Your task to perform on an android device: Open location settings Image 0: 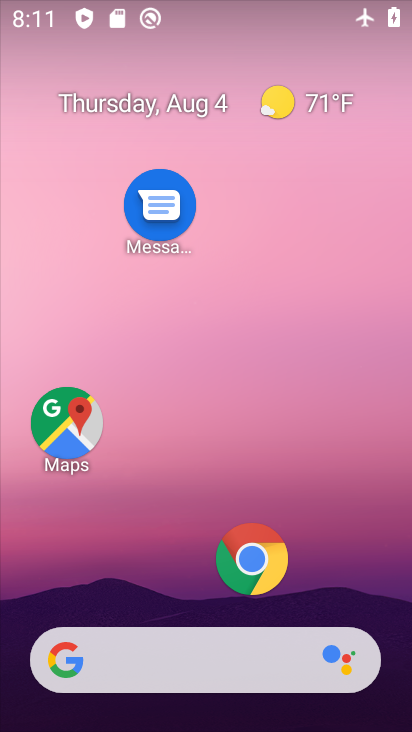
Step 0: drag from (217, 618) to (190, 21)
Your task to perform on an android device: Open location settings Image 1: 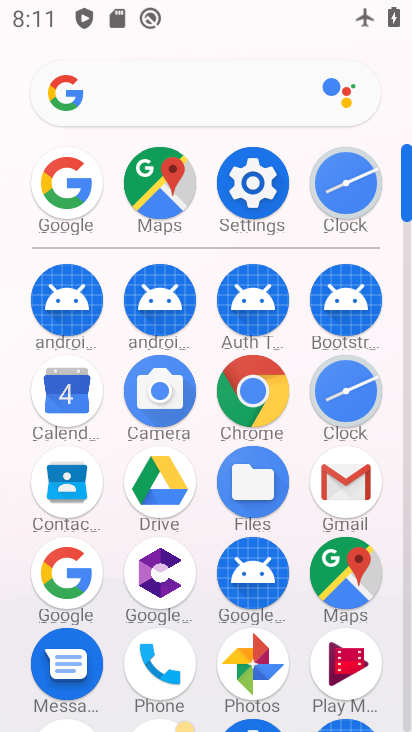
Step 1: click (266, 200)
Your task to perform on an android device: Open location settings Image 2: 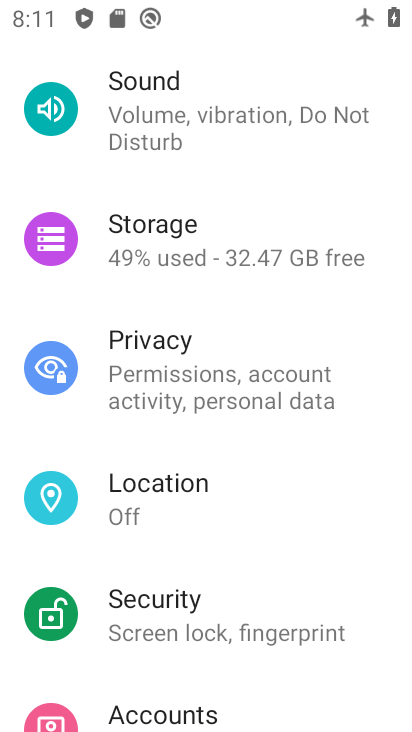
Step 2: click (148, 515)
Your task to perform on an android device: Open location settings Image 3: 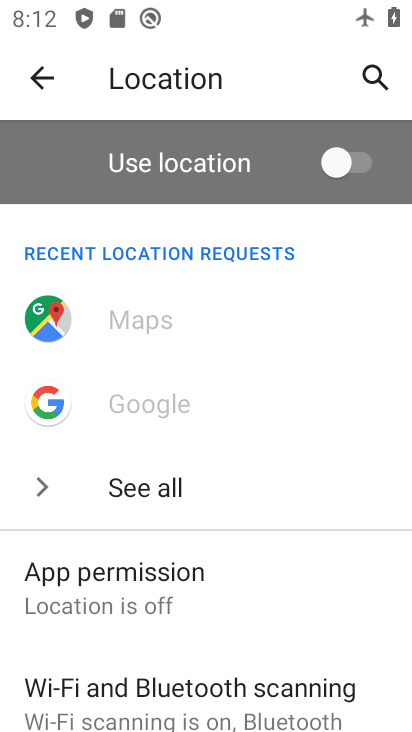
Step 3: task complete